Your task to perform on an android device: set an alarm Image 0: 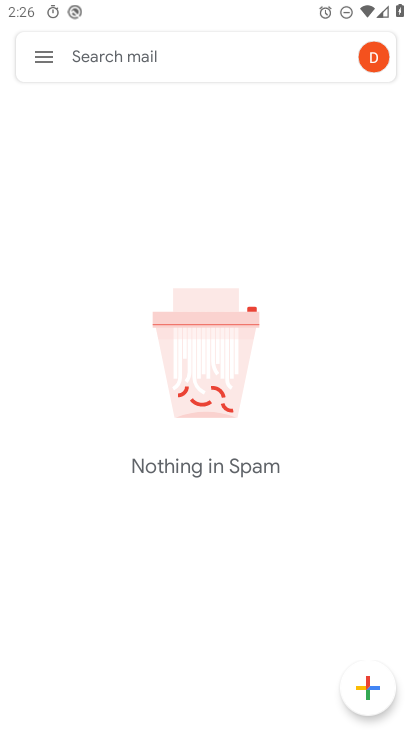
Step 0: press home button
Your task to perform on an android device: set an alarm Image 1: 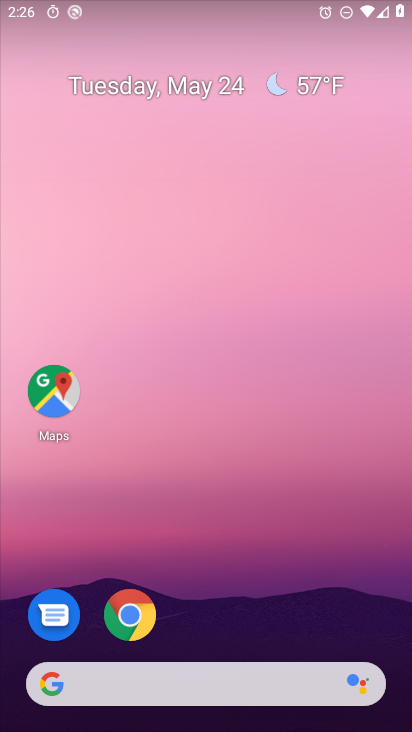
Step 1: drag from (185, 633) to (190, 152)
Your task to perform on an android device: set an alarm Image 2: 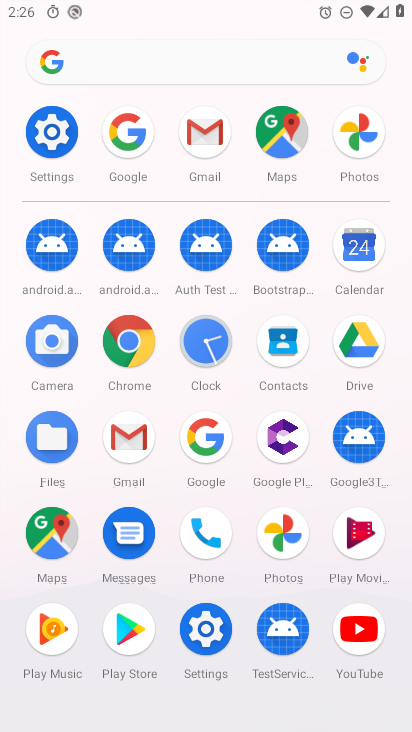
Step 2: click (204, 343)
Your task to perform on an android device: set an alarm Image 3: 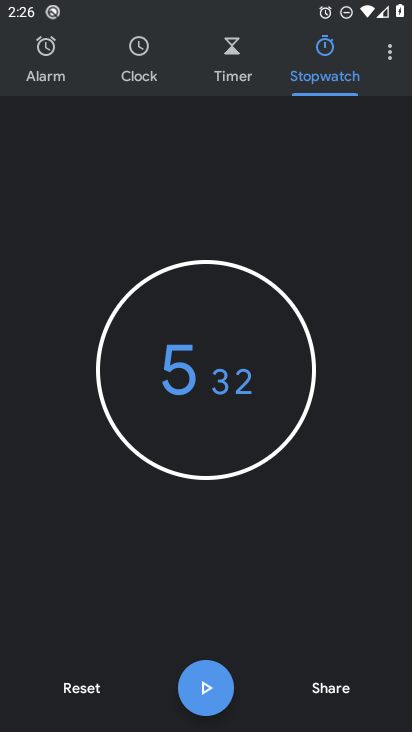
Step 3: click (38, 72)
Your task to perform on an android device: set an alarm Image 4: 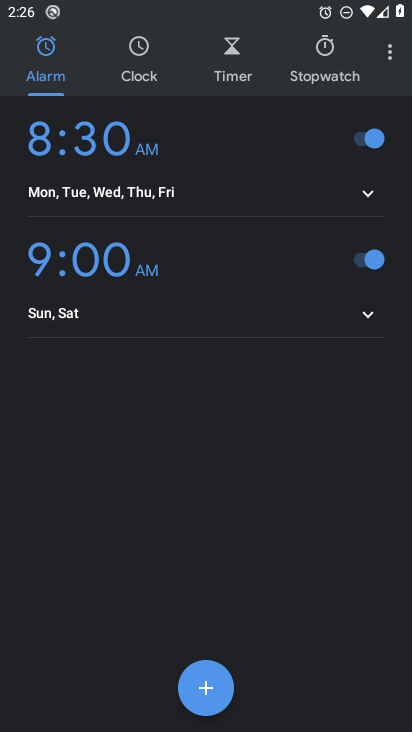
Step 4: click (353, 141)
Your task to perform on an android device: set an alarm Image 5: 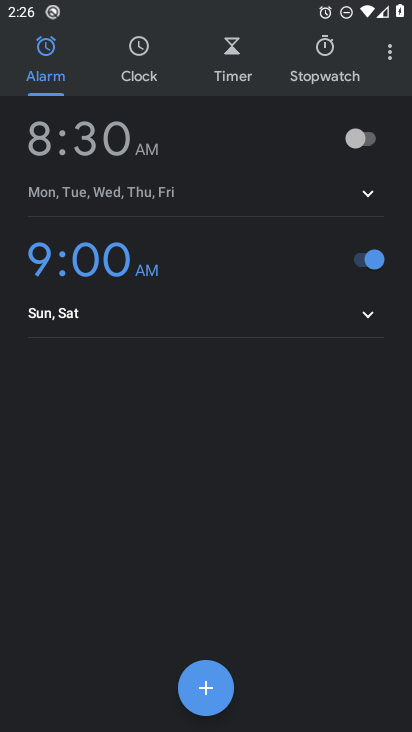
Step 5: click (371, 258)
Your task to perform on an android device: set an alarm Image 6: 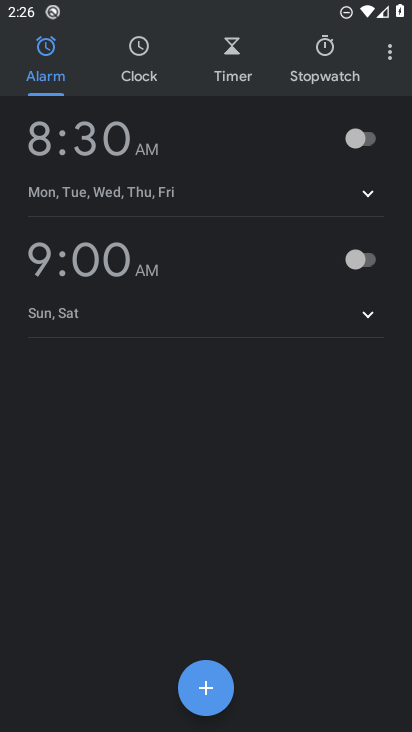
Step 6: click (206, 701)
Your task to perform on an android device: set an alarm Image 7: 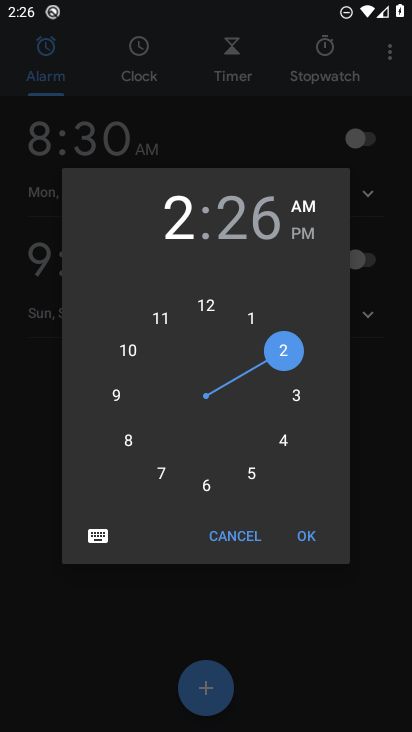
Step 7: click (120, 351)
Your task to perform on an android device: set an alarm Image 8: 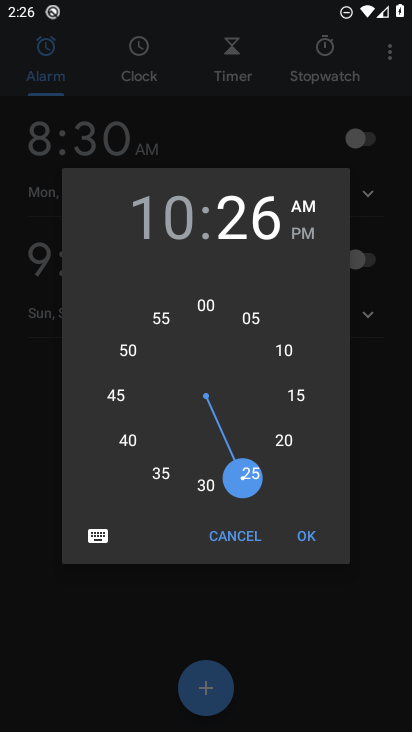
Step 8: click (207, 301)
Your task to perform on an android device: set an alarm Image 9: 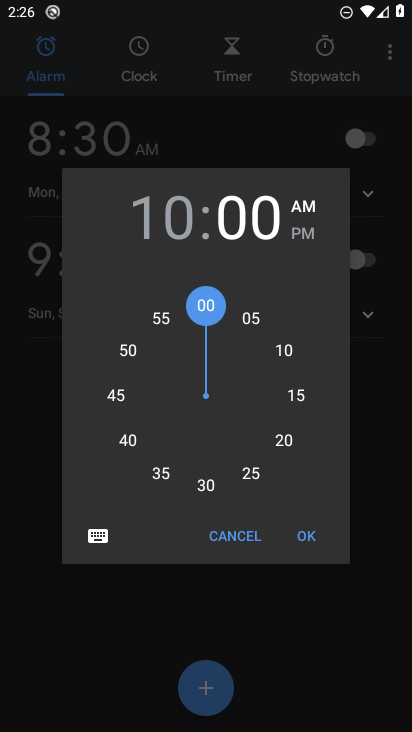
Step 9: click (310, 231)
Your task to perform on an android device: set an alarm Image 10: 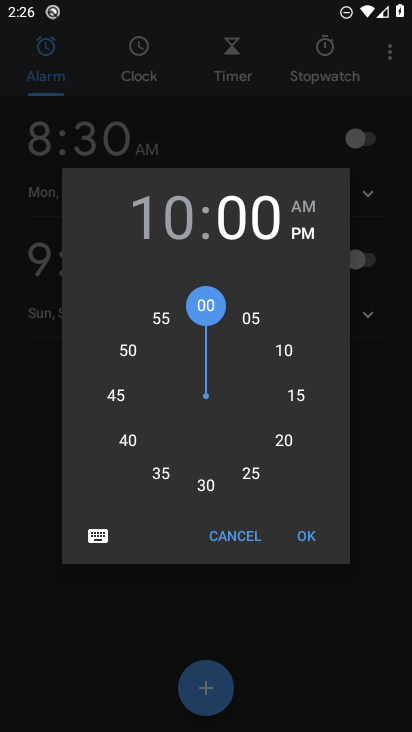
Step 10: click (306, 541)
Your task to perform on an android device: set an alarm Image 11: 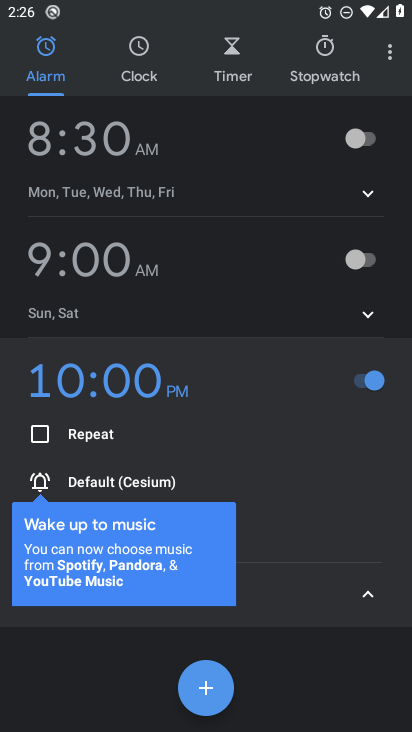
Step 11: task complete